Your task to perform on an android device: Search for sushi restaurants on Maps Image 0: 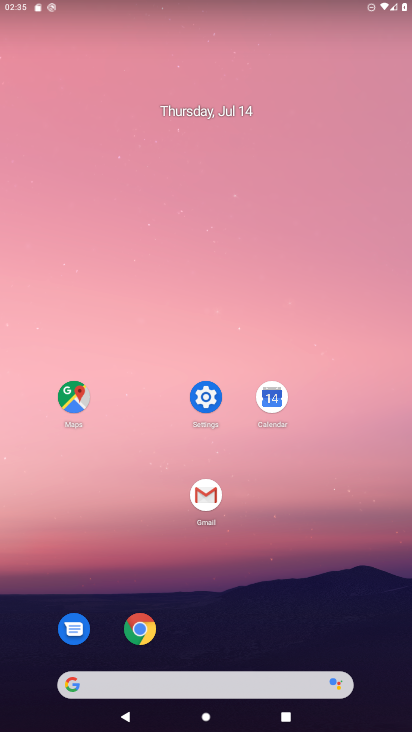
Step 0: click (62, 397)
Your task to perform on an android device: Search for sushi restaurants on Maps Image 1: 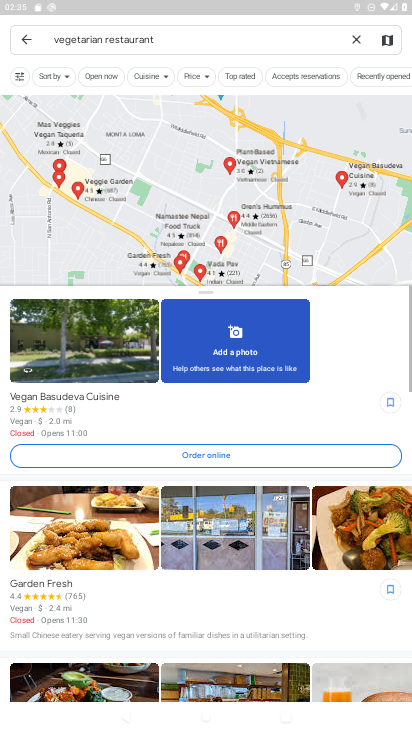
Step 1: click (355, 41)
Your task to perform on an android device: Search for sushi restaurants on Maps Image 2: 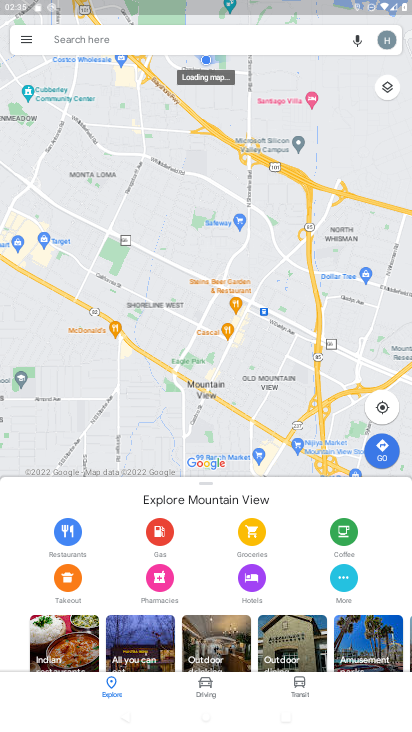
Step 2: click (116, 42)
Your task to perform on an android device: Search for sushi restaurants on Maps Image 3: 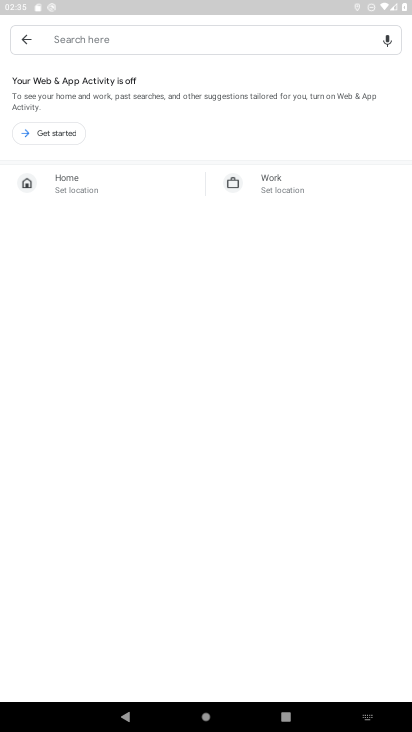
Step 3: type "sushi restaurants"
Your task to perform on an android device: Search for sushi restaurants on Maps Image 4: 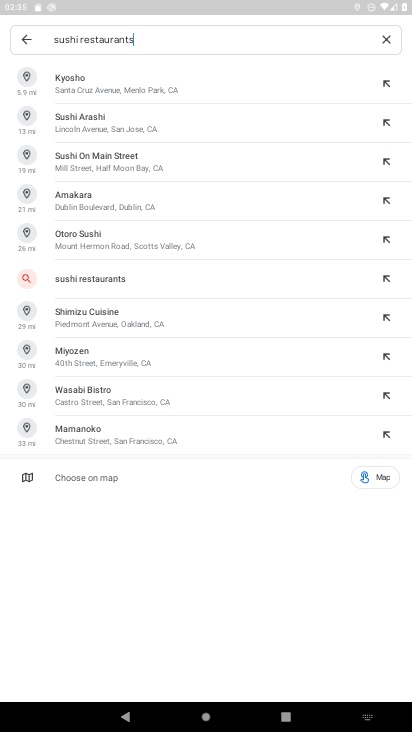
Step 4: click (111, 273)
Your task to perform on an android device: Search for sushi restaurants on Maps Image 5: 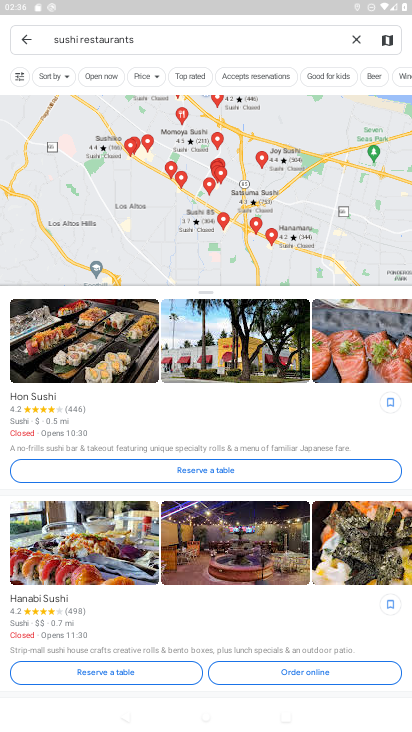
Step 5: task complete